Your task to perform on an android device: check the backup settings in the google photos Image 0: 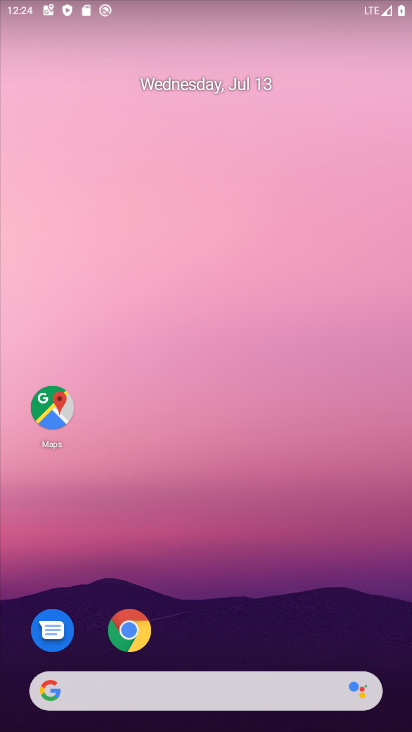
Step 0: drag from (383, 648) to (234, 54)
Your task to perform on an android device: check the backup settings in the google photos Image 1: 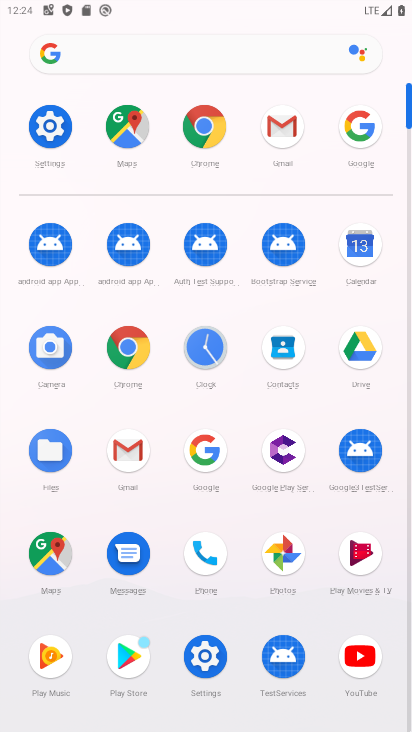
Step 1: click (286, 554)
Your task to perform on an android device: check the backup settings in the google photos Image 2: 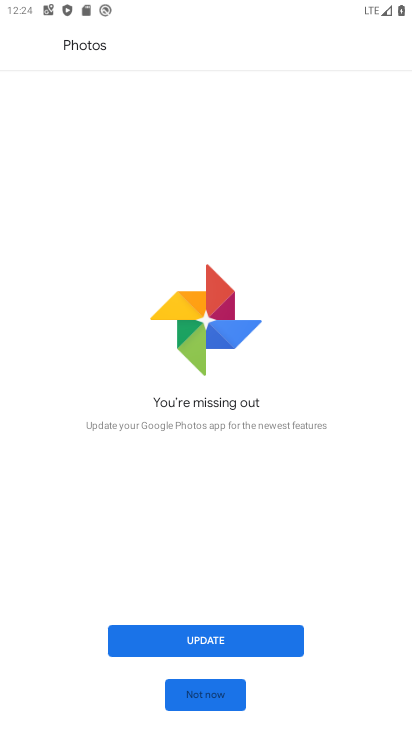
Step 2: click (227, 628)
Your task to perform on an android device: check the backup settings in the google photos Image 3: 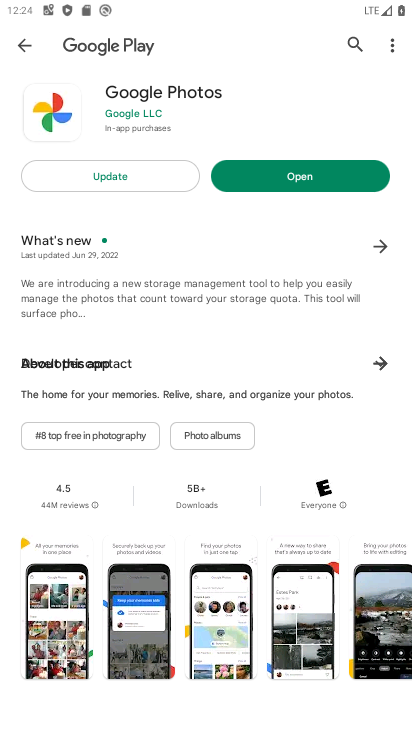
Step 3: click (100, 180)
Your task to perform on an android device: check the backup settings in the google photos Image 4: 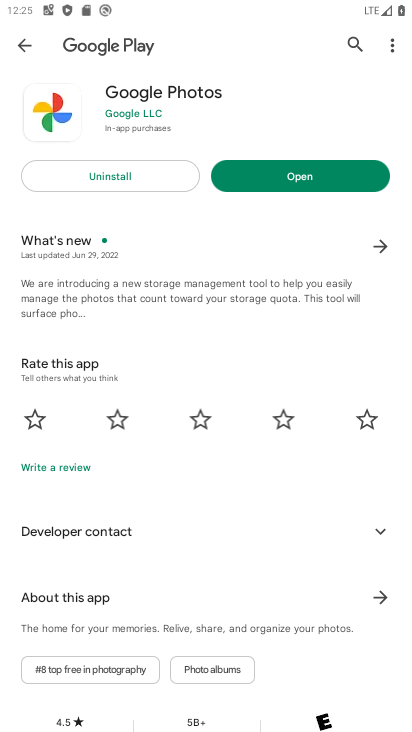
Step 4: click (313, 164)
Your task to perform on an android device: check the backup settings in the google photos Image 5: 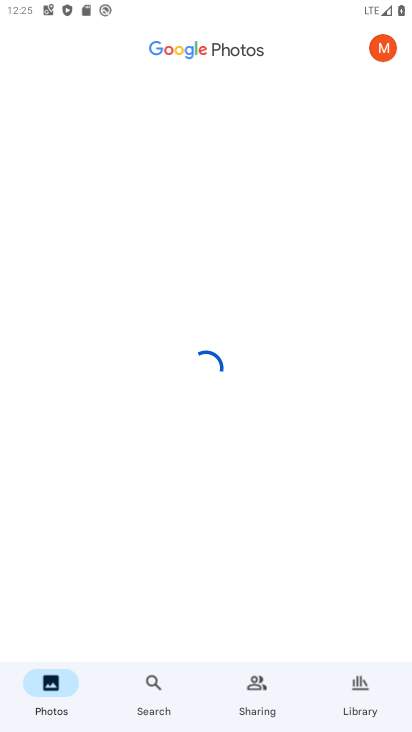
Step 5: click (380, 50)
Your task to perform on an android device: check the backup settings in the google photos Image 6: 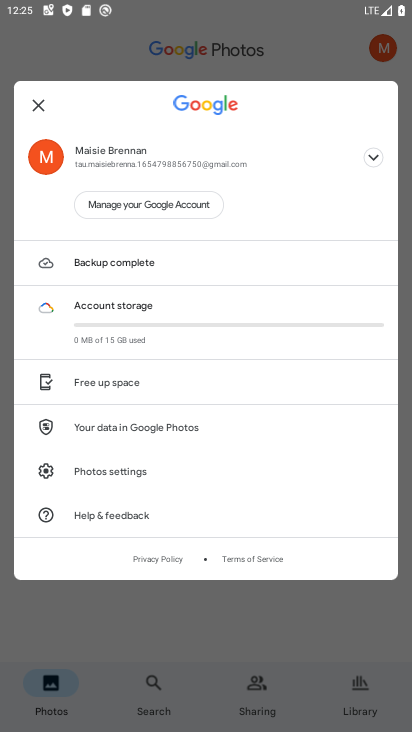
Step 6: click (92, 263)
Your task to perform on an android device: check the backup settings in the google photos Image 7: 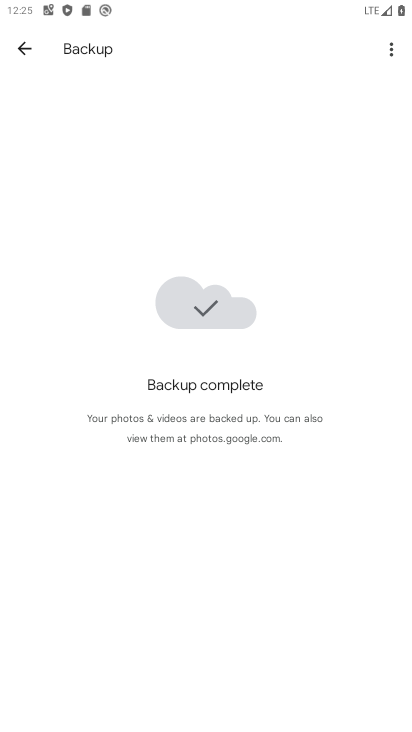
Step 7: task complete